Your task to perform on an android device: turn smart compose on in the gmail app Image 0: 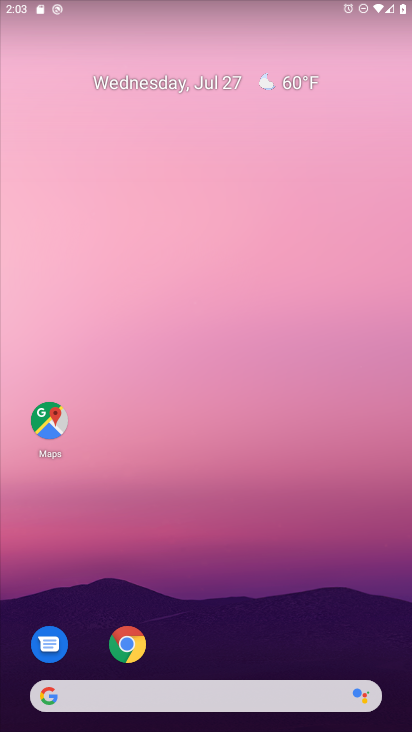
Step 0: drag from (166, 637) to (177, 154)
Your task to perform on an android device: turn smart compose on in the gmail app Image 1: 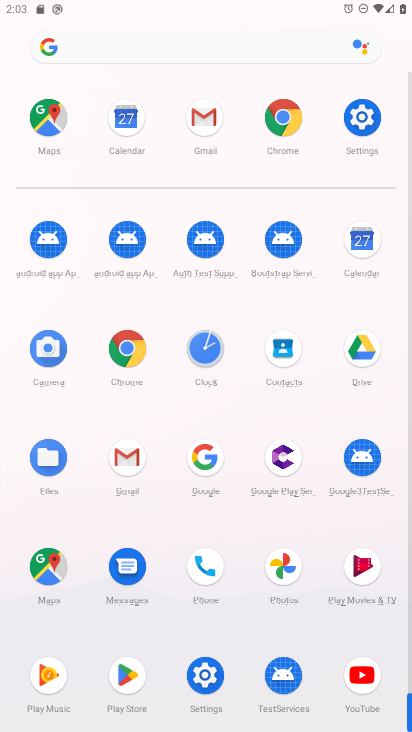
Step 1: click (131, 454)
Your task to perform on an android device: turn smart compose on in the gmail app Image 2: 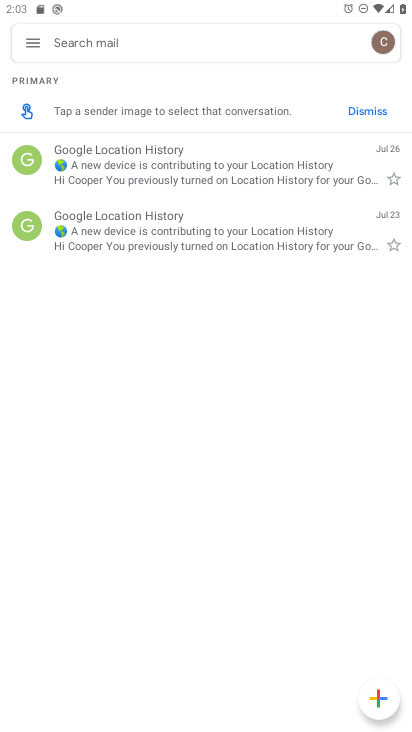
Step 2: click (31, 45)
Your task to perform on an android device: turn smart compose on in the gmail app Image 3: 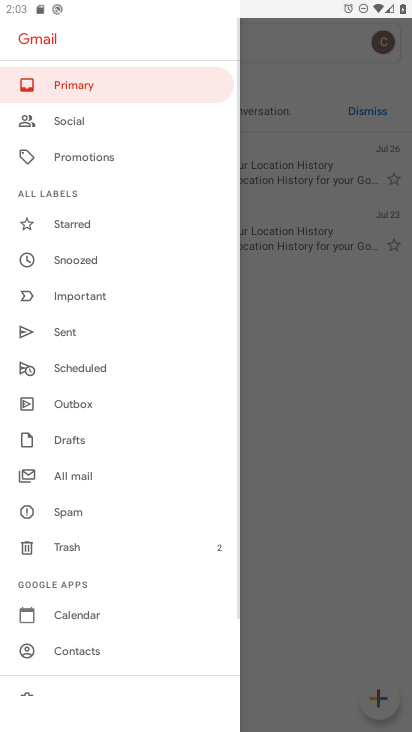
Step 3: drag from (65, 621) to (103, 193)
Your task to perform on an android device: turn smart compose on in the gmail app Image 4: 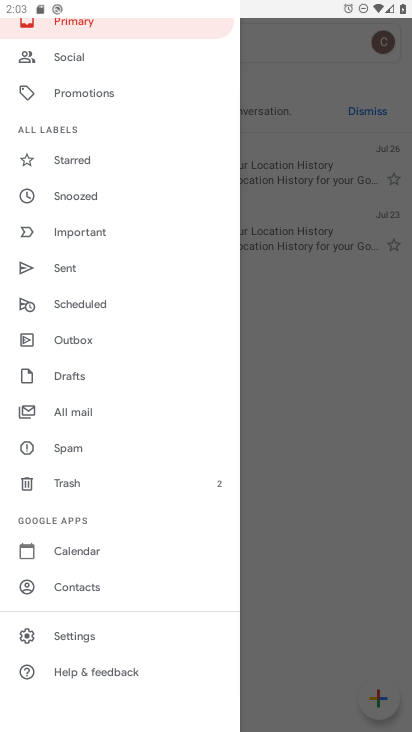
Step 4: click (86, 629)
Your task to perform on an android device: turn smart compose on in the gmail app Image 5: 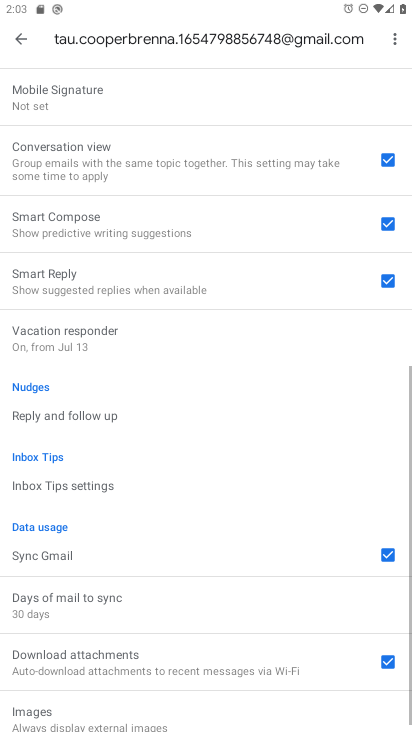
Step 5: task complete